Your task to perform on an android device: turn off improve location accuracy Image 0: 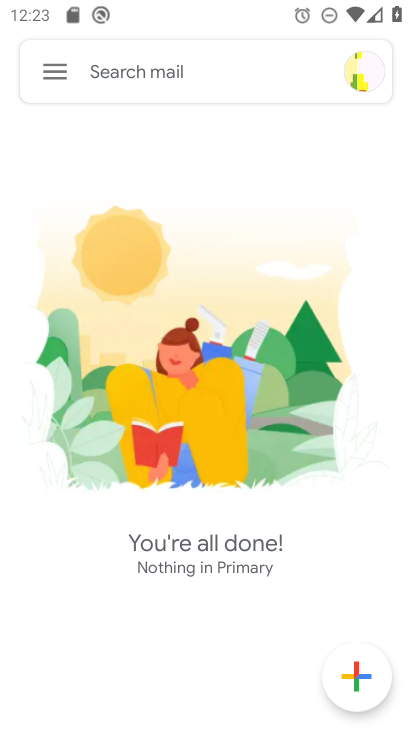
Step 0: press home button
Your task to perform on an android device: turn off improve location accuracy Image 1: 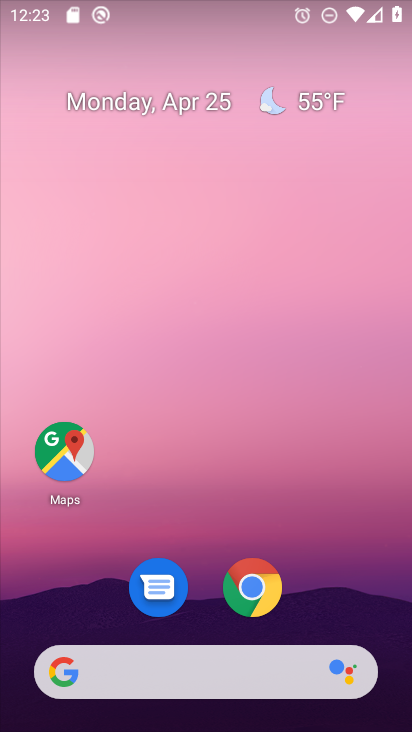
Step 1: drag from (341, 512) to (313, 112)
Your task to perform on an android device: turn off improve location accuracy Image 2: 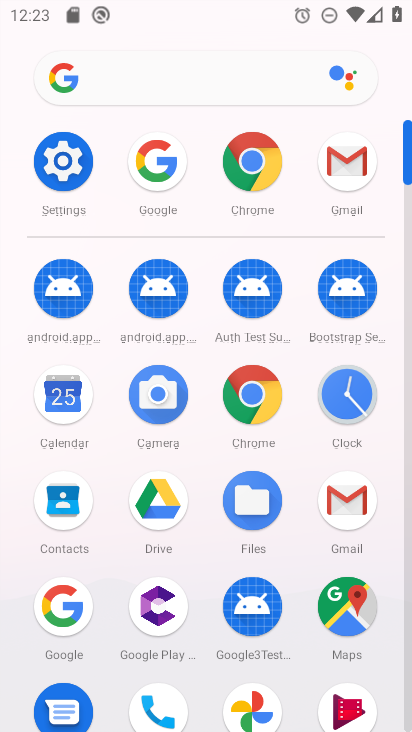
Step 2: click (65, 155)
Your task to perform on an android device: turn off improve location accuracy Image 3: 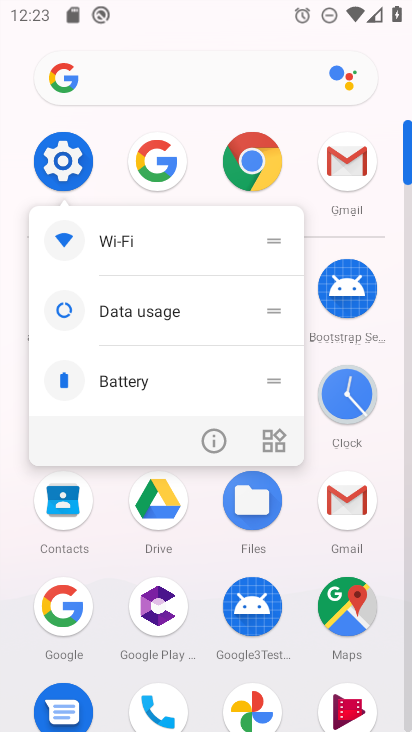
Step 3: click (66, 146)
Your task to perform on an android device: turn off improve location accuracy Image 4: 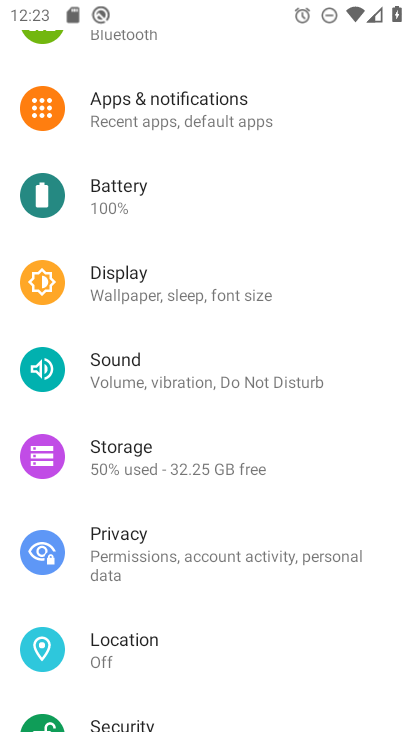
Step 4: drag from (243, 535) to (267, 163)
Your task to perform on an android device: turn off improve location accuracy Image 5: 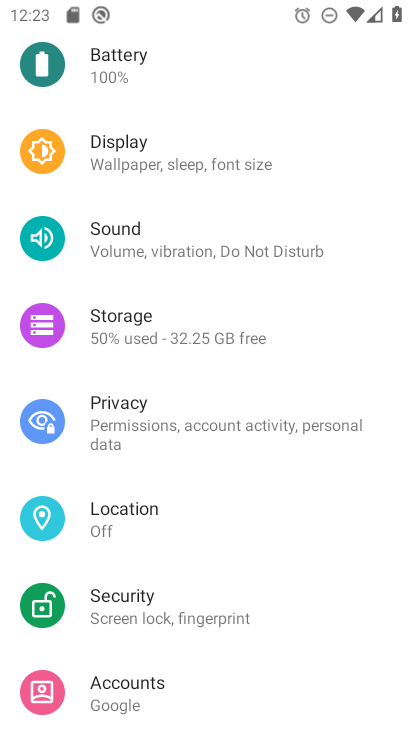
Step 5: drag from (232, 554) to (244, 210)
Your task to perform on an android device: turn off improve location accuracy Image 6: 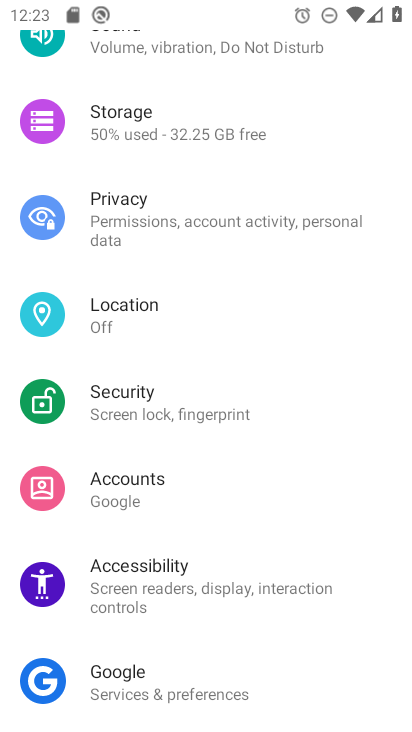
Step 6: click (142, 318)
Your task to perform on an android device: turn off improve location accuracy Image 7: 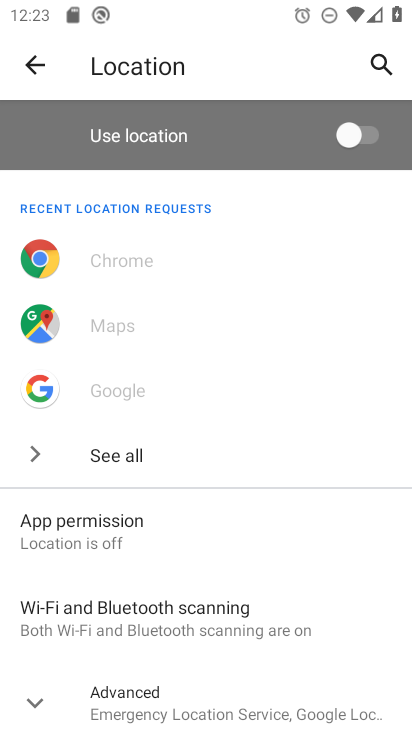
Step 7: drag from (208, 588) to (262, 231)
Your task to perform on an android device: turn off improve location accuracy Image 8: 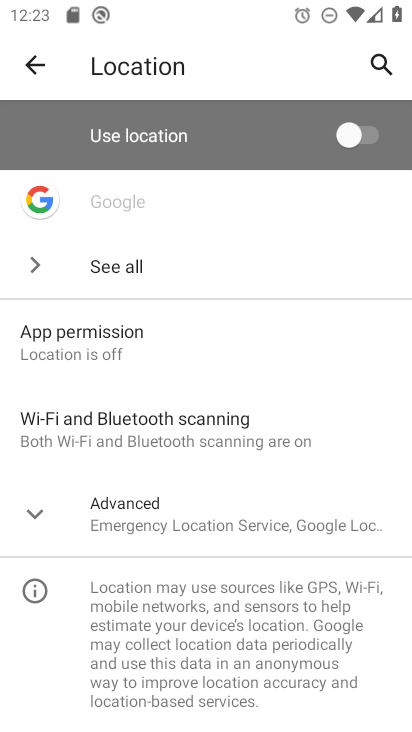
Step 8: click (192, 536)
Your task to perform on an android device: turn off improve location accuracy Image 9: 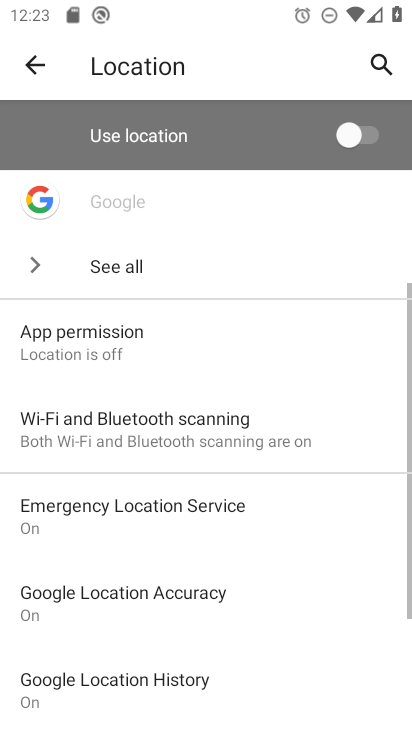
Step 9: drag from (326, 564) to (338, 259)
Your task to perform on an android device: turn off improve location accuracy Image 10: 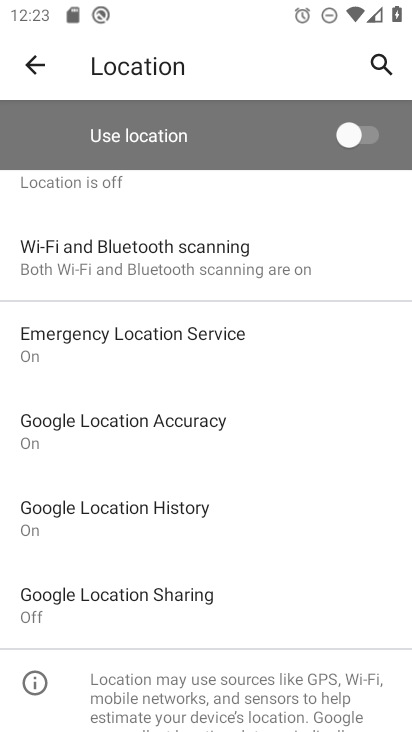
Step 10: click (188, 416)
Your task to perform on an android device: turn off improve location accuracy Image 11: 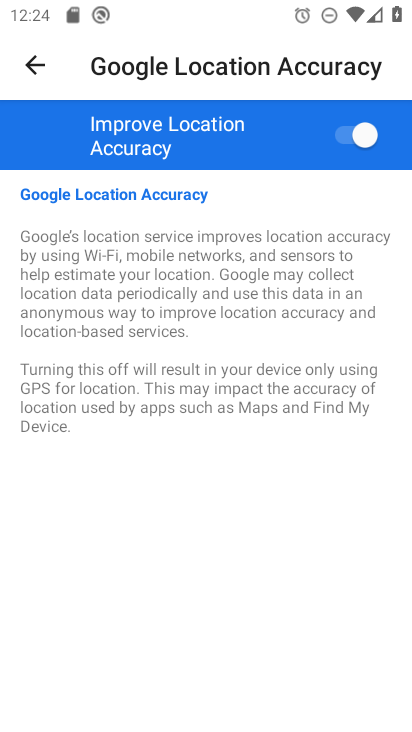
Step 11: click (355, 126)
Your task to perform on an android device: turn off improve location accuracy Image 12: 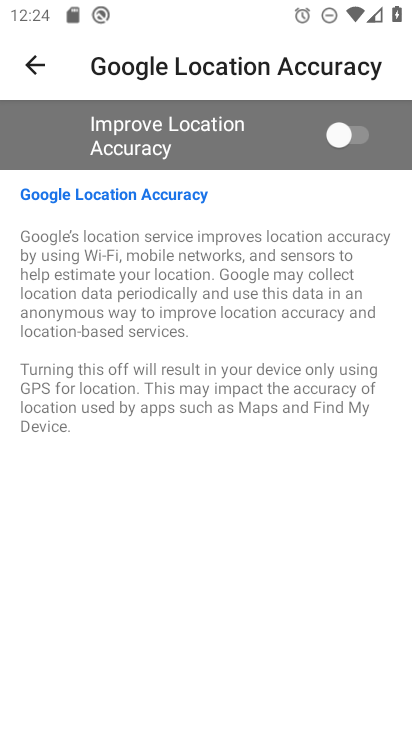
Step 12: task complete